Your task to perform on an android device: turn off javascript in the chrome app Image 0: 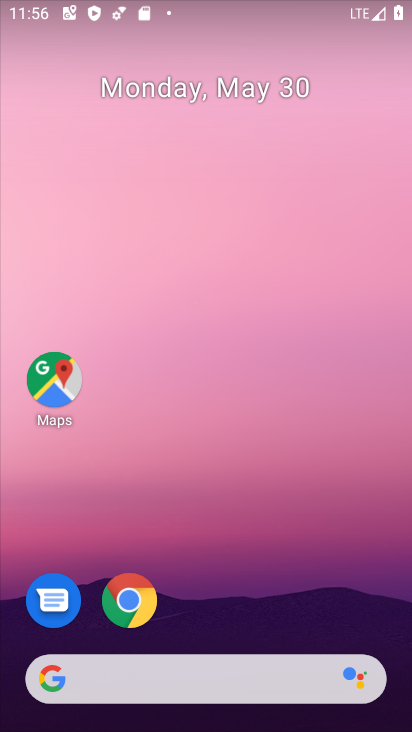
Step 0: click (120, 599)
Your task to perform on an android device: turn off javascript in the chrome app Image 1: 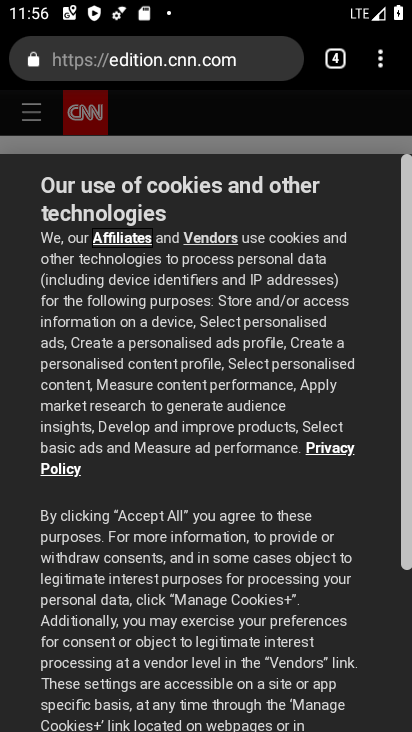
Step 1: click (384, 68)
Your task to perform on an android device: turn off javascript in the chrome app Image 2: 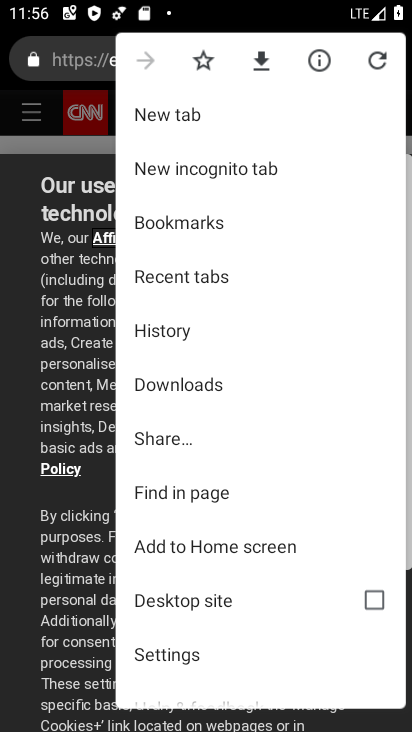
Step 2: click (177, 652)
Your task to perform on an android device: turn off javascript in the chrome app Image 3: 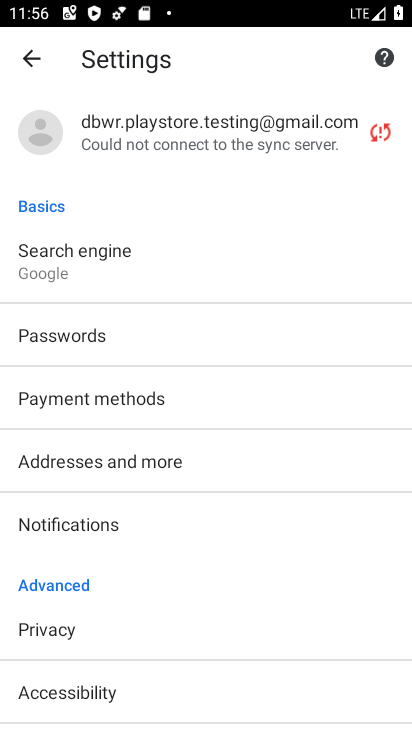
Step 3: drag from (149, 703) to (146, 220)
Your task to perform on an android device: turn off javascript in the chrome app Image 4: 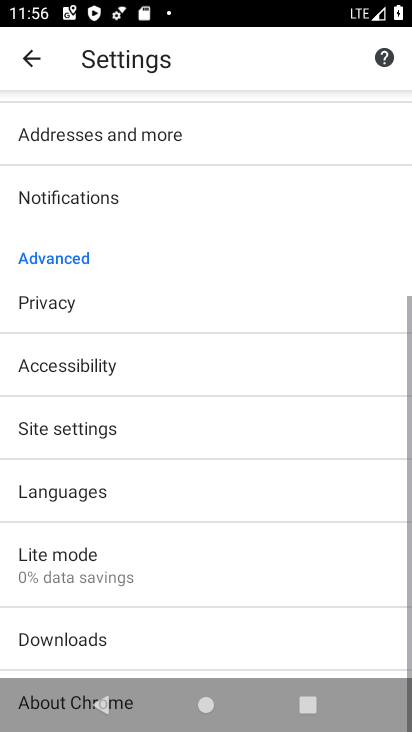
Step 4: click (90, 423)
Your task to perform on an android device: turn off javascript in the chrome app Image 5: 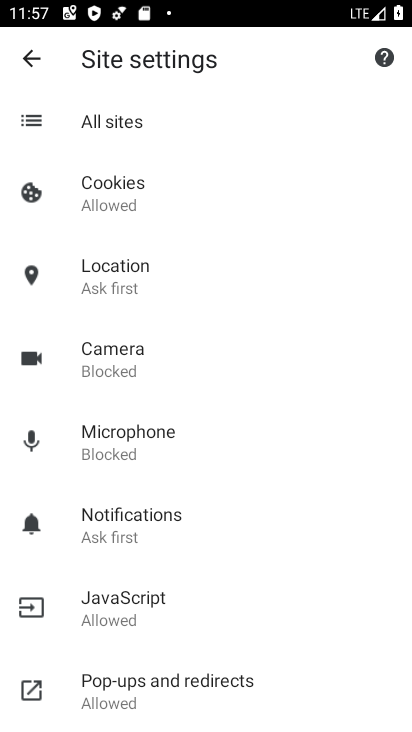
Step 5: click (96, 599)
Your task to perform on an android device: turn off javascript in the chrome app Image 6: 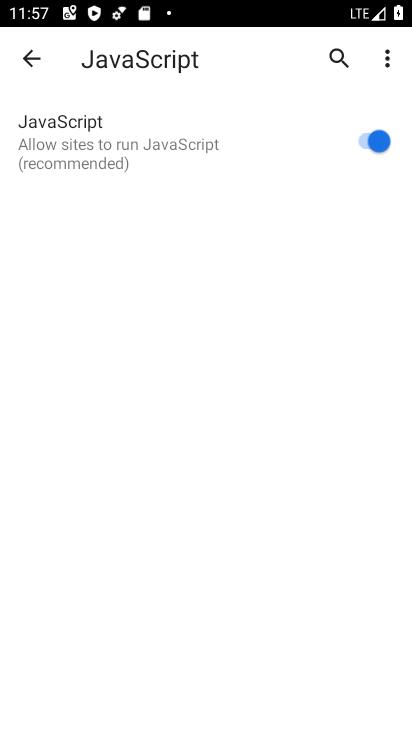
Step 6: click (366, 139)
Your task to perform on an android device: turn off javascript in the chrome app Image 7: 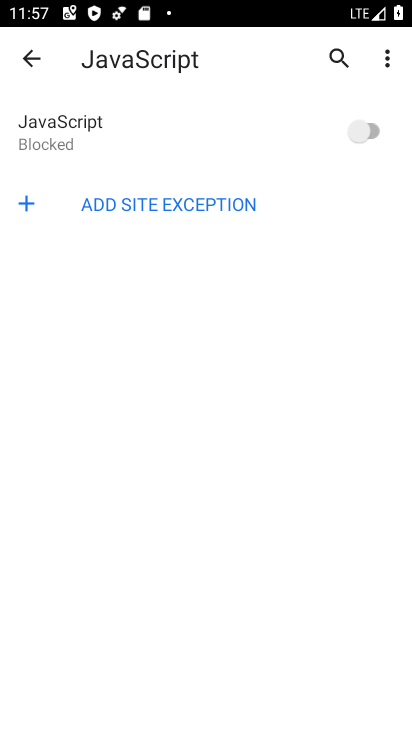
Step 7: task complete